Your task to perform on an android device: Show me the alarms in the clock app Image 0: 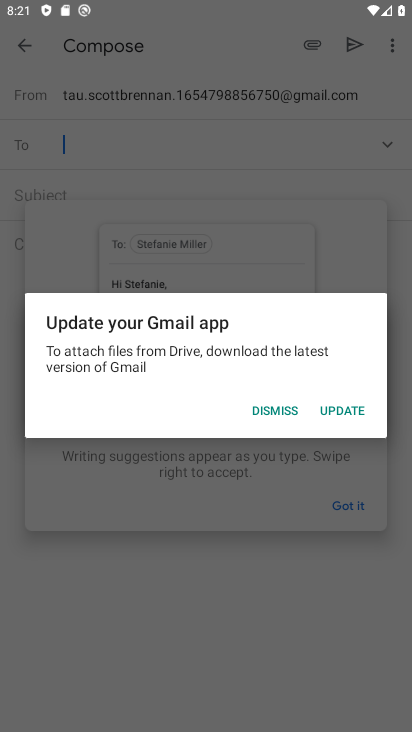
Step 0: press home button
Your task to perform on an android device: Show me the alarms in the clock app Image 1: 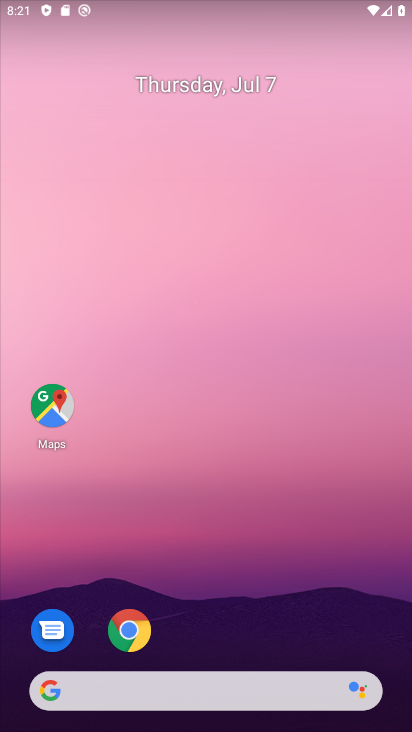
Step 1: drag from (370, 597) to (348, 191)
Your task to perform on an android device: Show me the alarms in the clock app Image 2: 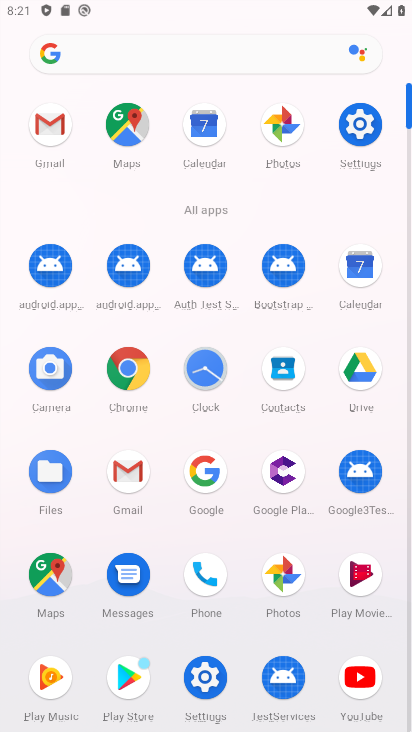
Step 2: click (199, 364)
Your task to perform on an android device: Show me the alarms in the clock app Image 3: 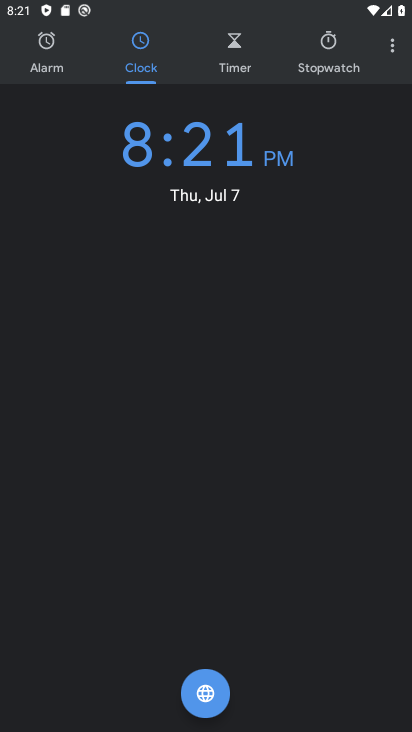
Step 3: click (23, 44)
Your task to perform on an android device: Show me the alarms in the clock app Image 4: 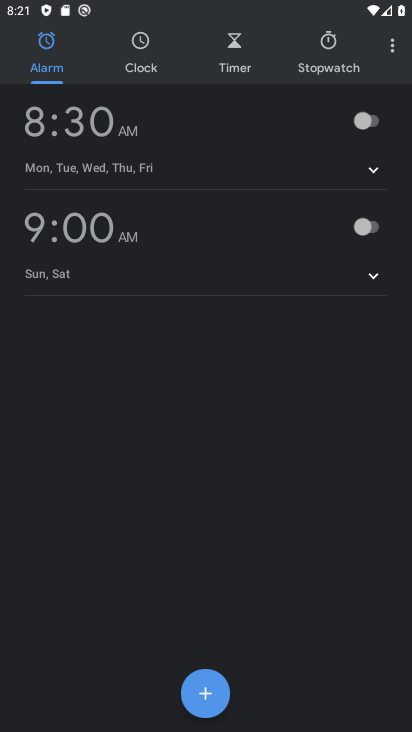
Step 4: task complete